Your task to perform on an android device: Go to wifi settings Image 0: 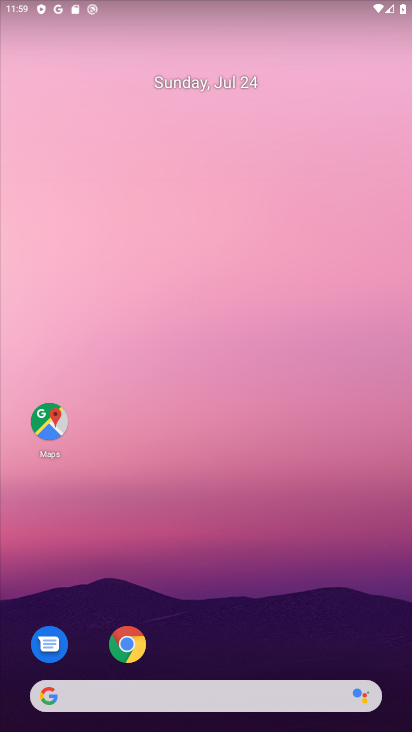
Step 0: drag from (127, 4) to (207, 685)
Your task to perform on an android device: Go to wifi settings Image 1: 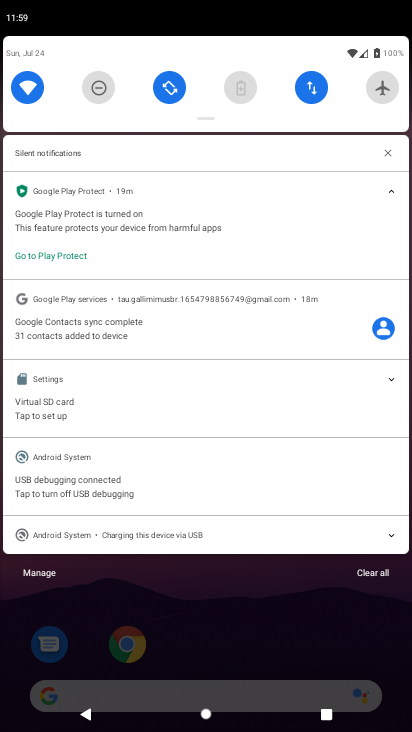
Step 1: click (37, 102)
Your task to perform on an android device: Go to wifi settings Image 2: 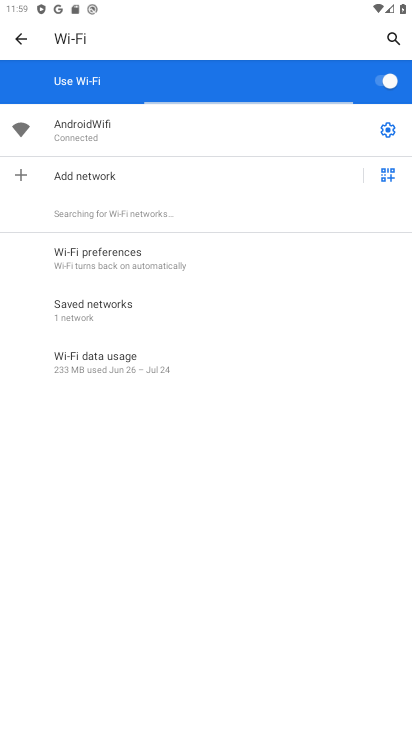
Step 2: task complete